Your task to perform on an android device: turn pop-ups on in chrome Image 0: 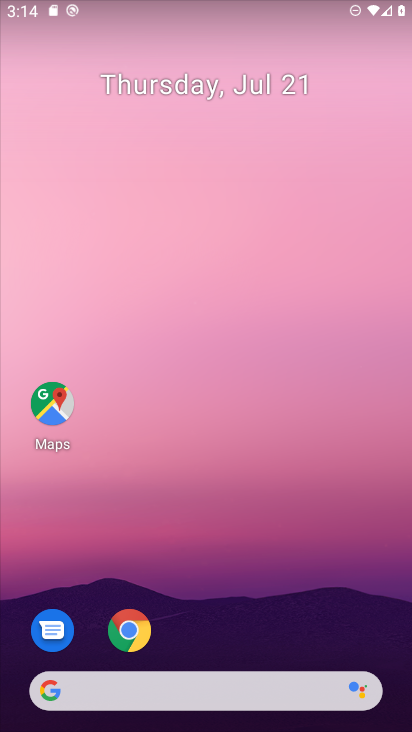
Step 0: click (135, 626)
Your task to perform on an android device: turn pop-ups on in chrome Image 1: 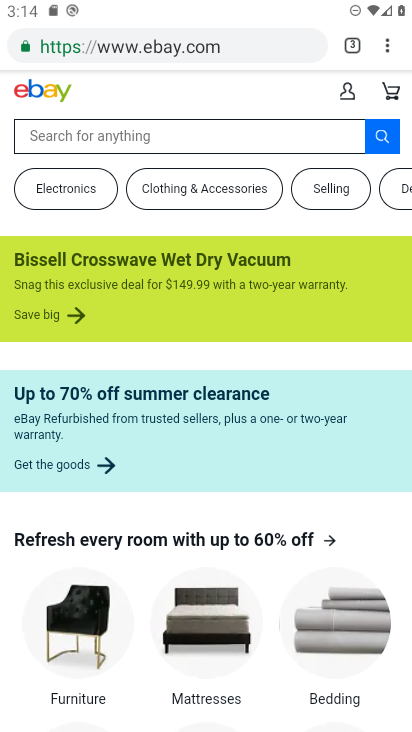
Step 1: drag from (378, 38) to (244, 547)
Your task to perform on an android device: turn pop-ups on in chrome Image 2: 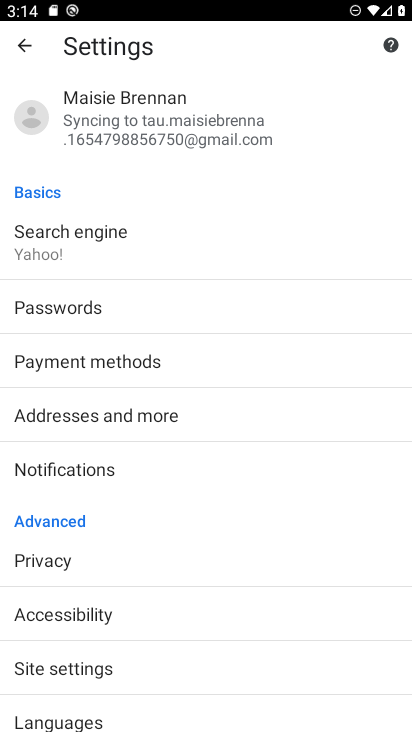
Step 2: drag from (135, 694) to (261, 364)
Your task to perform on an android device: turn pop-ups on in chrome Image 3: 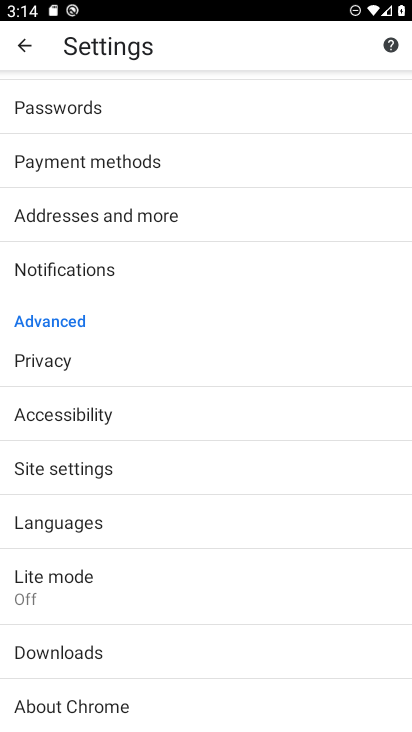
Step 3: click (92, 473)
Your task to perform on an android device: turn pop-ups on in chrome Image 4: 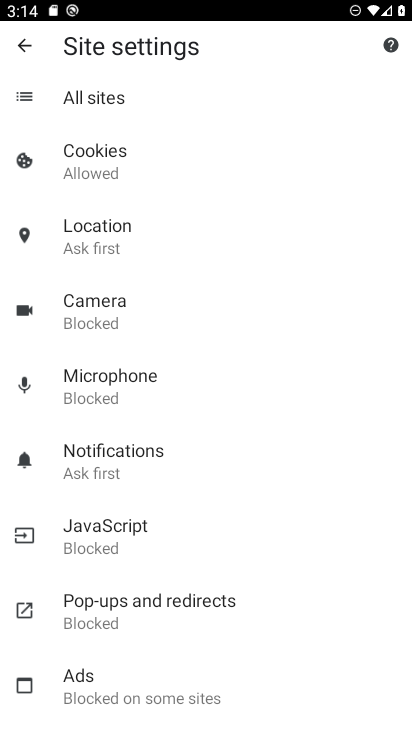
Step 4: click (99, 620)
Your task to perform on an android device: turn pop-ups on in chrome Image 5: 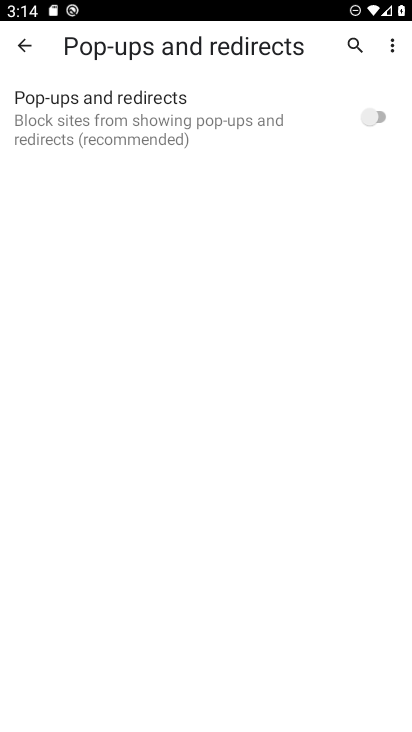
Step 5: click (375, 115)
Your task to perform on an android device: turn pop-ups on in chrome Image 6: 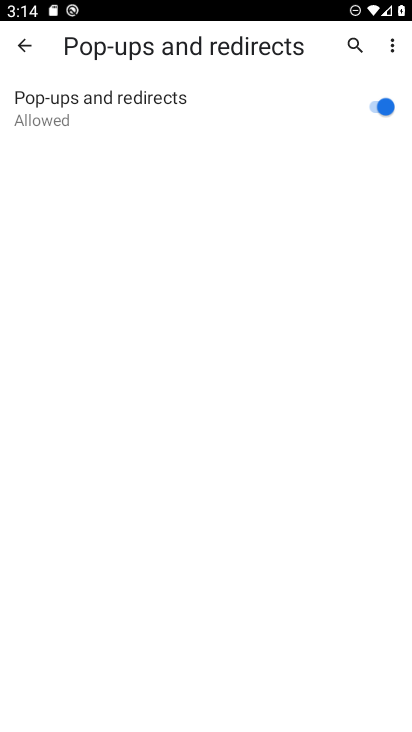
Step 6: task complete